Your task to perform on an android device: toggle priority inbox in the gmail app Image 0: 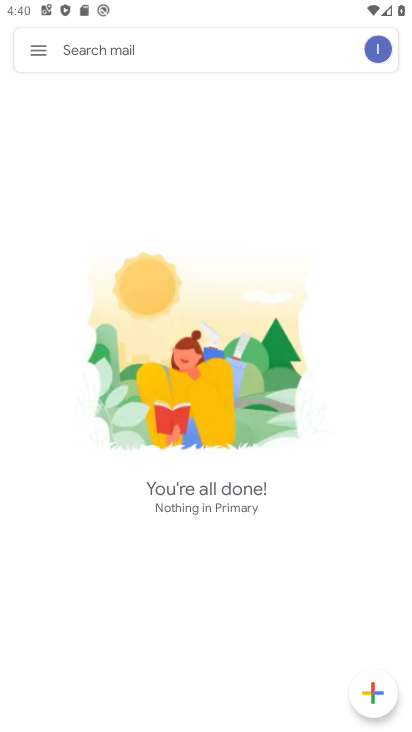
Step 0: press home button
Your task to perform on an android device: toggle priority inbox in the gmail app Image 1: 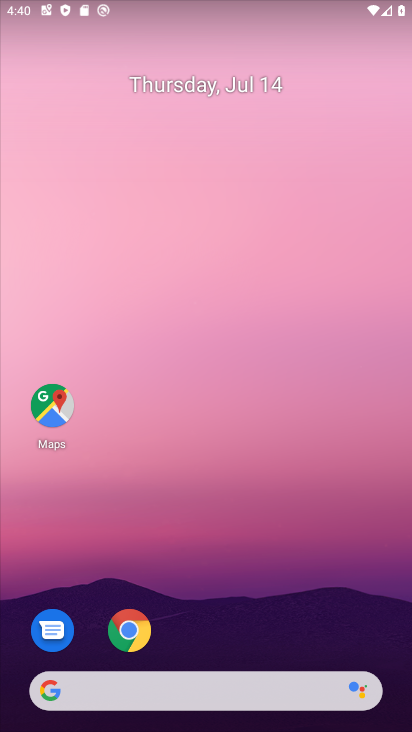
Step 1: drag from (286, 703) to (331, 8)
Your task to perform on an android device: toggle priority inbox in the gmail app Image 2: 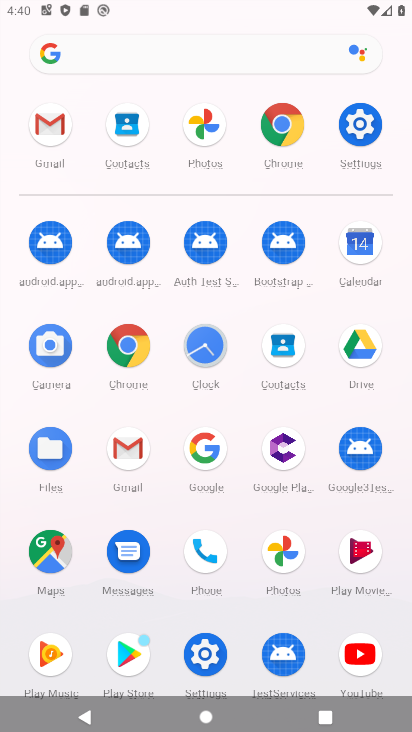
Step 2: click (126, 448)
Your task to perform on an android device: toggle priority inbox in the gmail app Image 3: 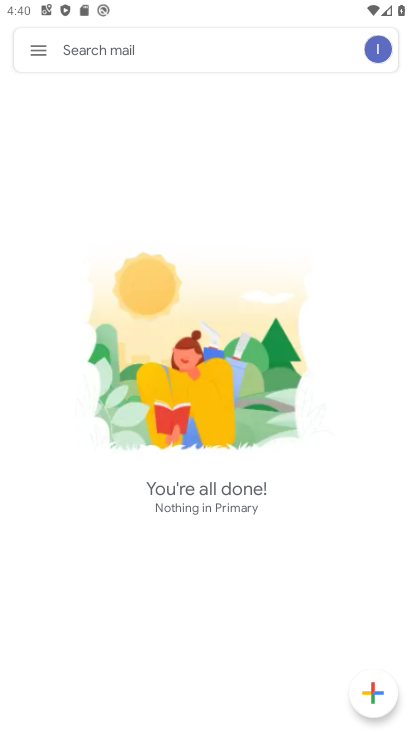
Step 3: click (36, 37)
Your task to perform on an android device: toggle priority inbox in the gmail app Image 4: 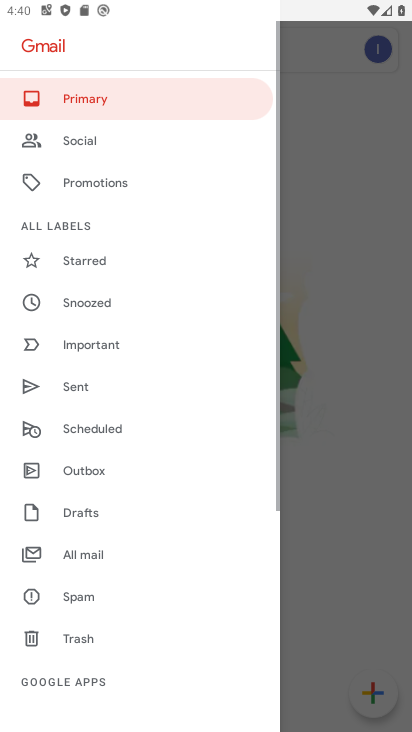
Step 4: drag from (135, 638) to (250, 171)
Your task to perform on an android device: toggle priority inbox in the gmail app Image 5: 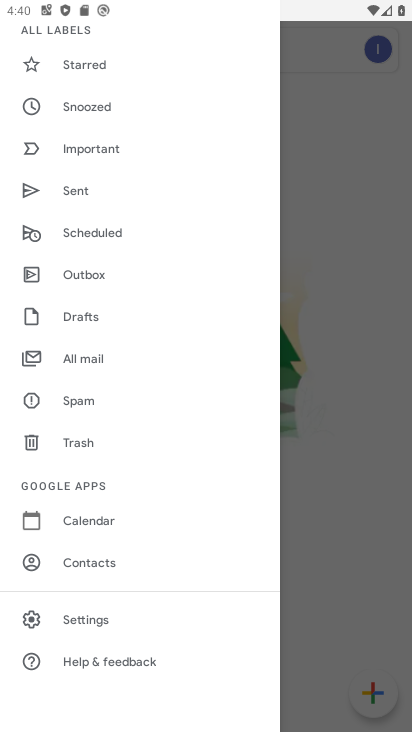
Step 5: click (91, 613)
Your task to perform on an android device: toggle priority inbox in the gmail app Image 6: 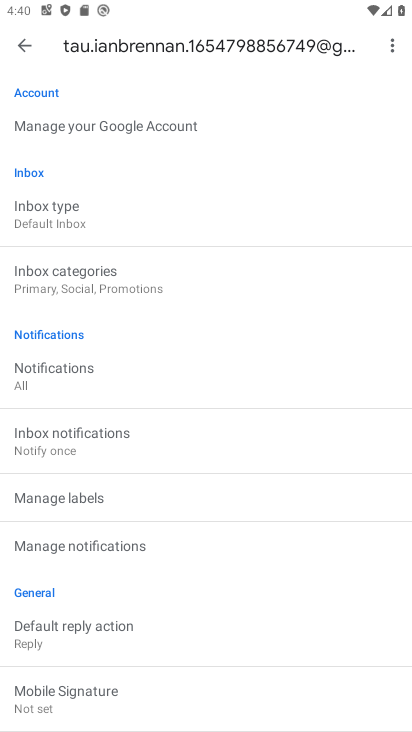
Step 6: click (46, 230)
Your task to perform on an android device: toggle priority inbox in the gmail app Image 7: 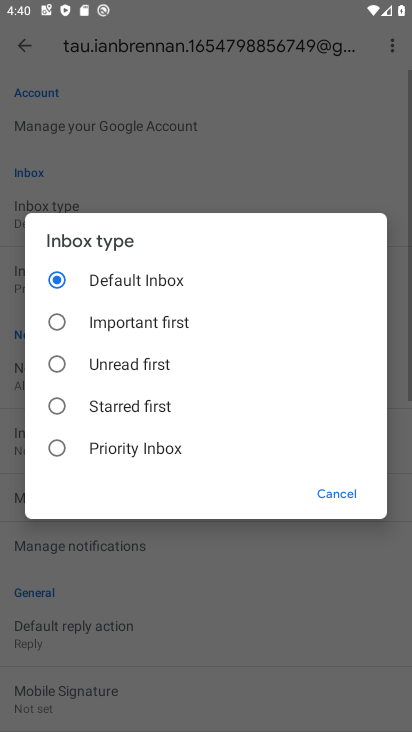
Step 7: click (50, 444)
Your task to perform on an android device: toggle priority inbox in the gmail app Image 8: 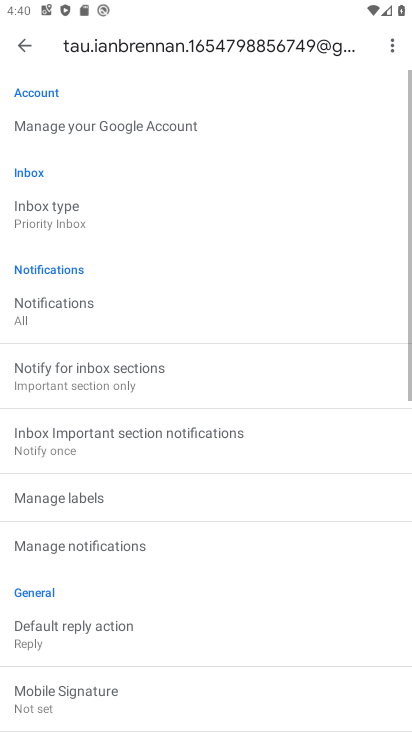
Step 8: task complete